Your task to perform on an android device: find photos in the google photos app Image 0: 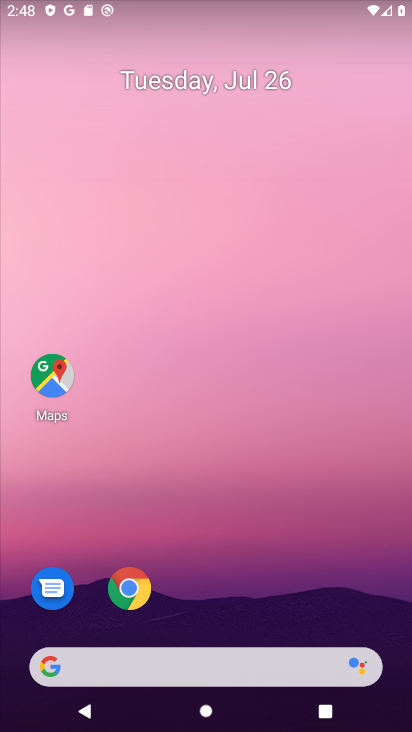
Step 0: drag from (289, 609) to (202, 117)
Your task to perform on an android device: find photos in the google photos app Image 1: 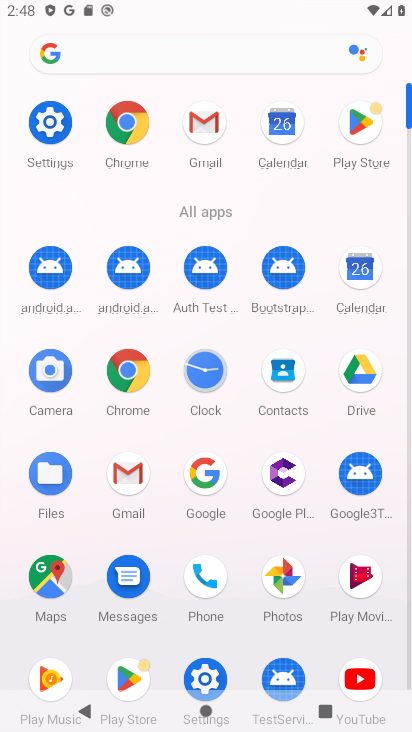
Step 1: click (285, 585)
Your task to perform on an android device: find photos in the google photos app Image 2: 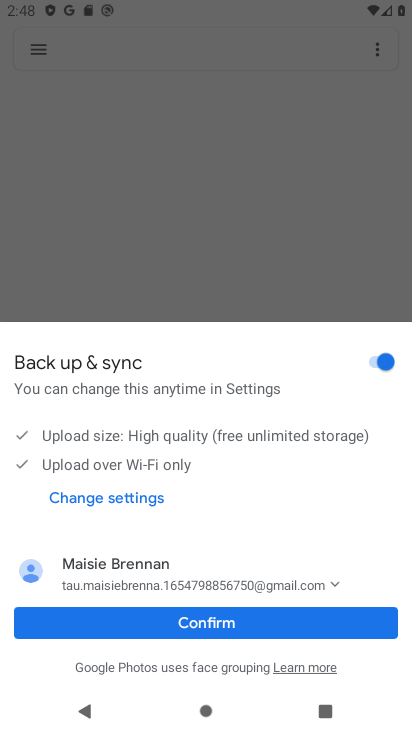
Step 2: click (289, 621)
Your task to perform on an android device: find photos in the google photos app Image 3: 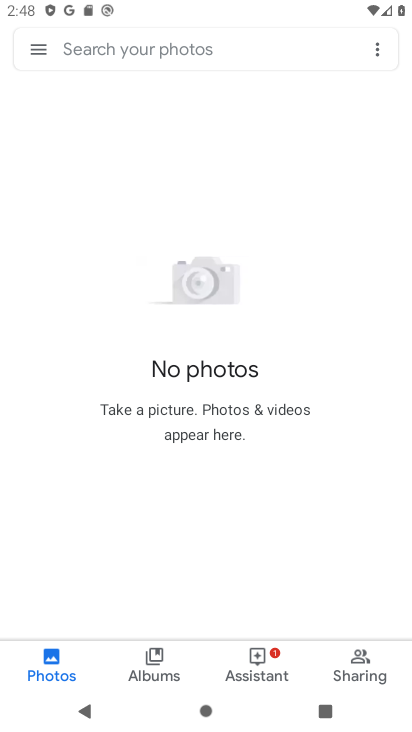
Step 3: task complete